Your task to perform on an android device: turn off smart reply in the gmail app Image 0: 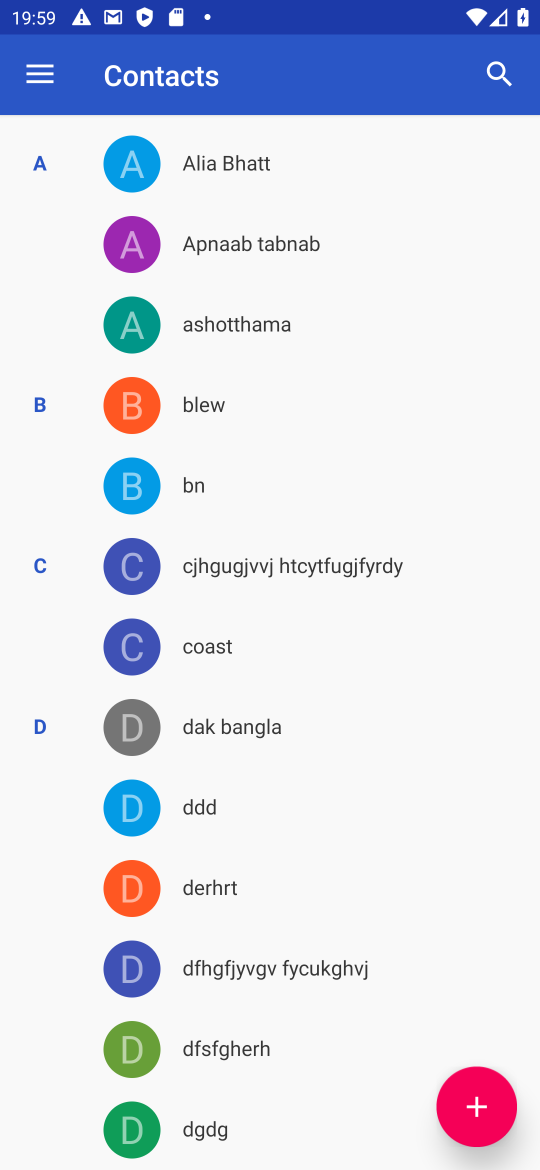
Step 0: press home button
Your task to perform on an android device: turn off smart reply in the gmail app Image 1: 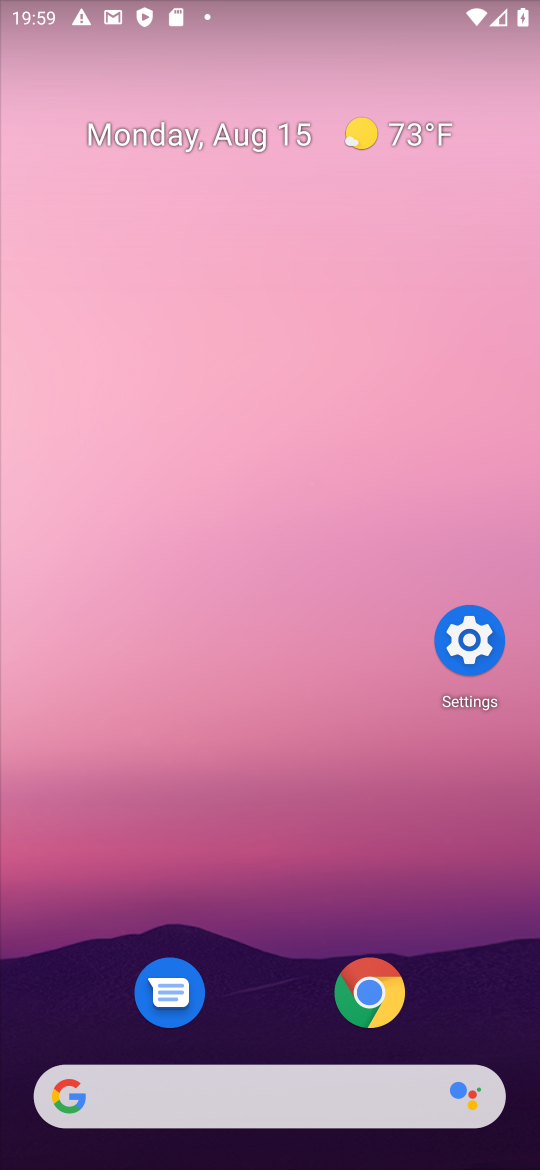
Step 1: drag from (277, 1066) to (430, 173)
Your task to perform on an android device: turn off smart reply in the gmail app Image 2: 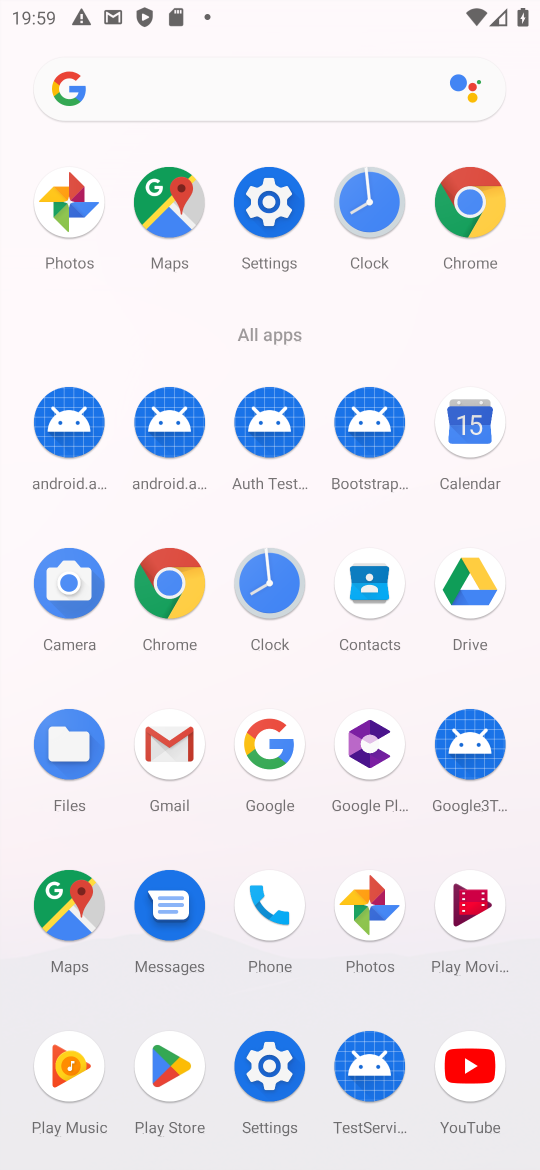
Step 2: click (172, 754)
Your task to perform on an android device: turn off smart reply in the gmail app Image 3: 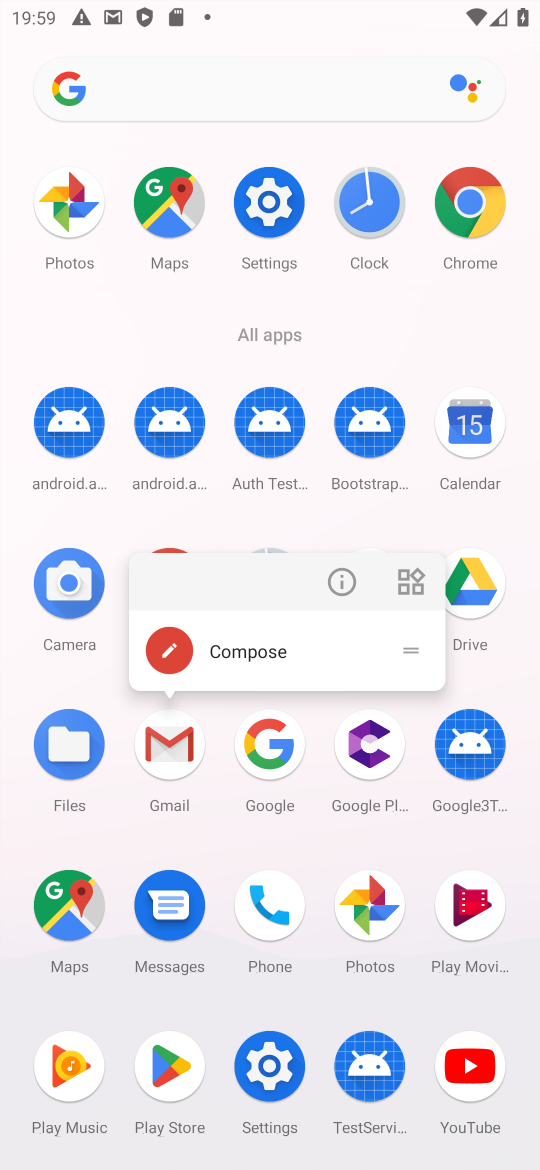
Step 3: click (172, 757)
Your task to perform on an android device: turn off smart reply in the gmail app Image 4: 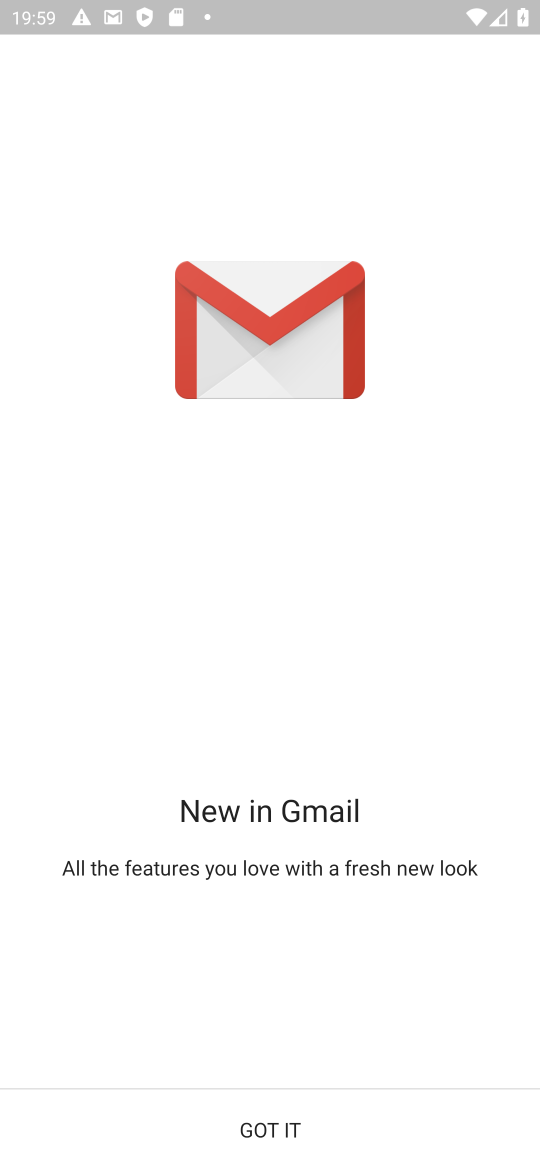
Step 4: click (330, 1131)
Your task to perform on an android device: turn off smart reply in the gmail app Image 5: 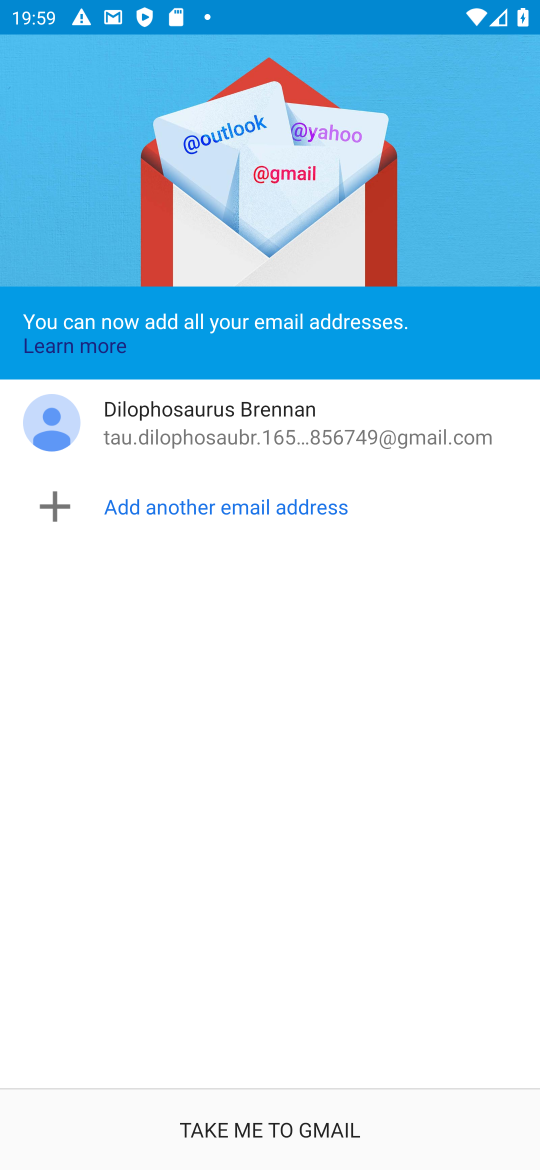
Step 5: click (301, 1131)
Your task to perform on an android device: turn off smart reply in the gmail app Image 6: 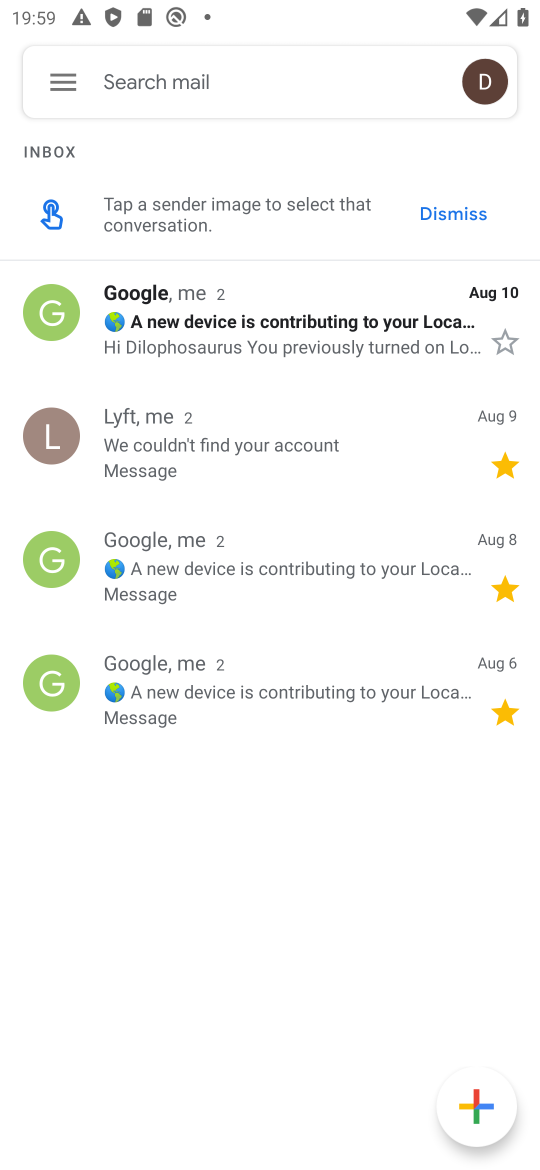
Step 6: click (57, 79)
Your task to perform on an android device: turn off smart reply in the gmail app Image 7: 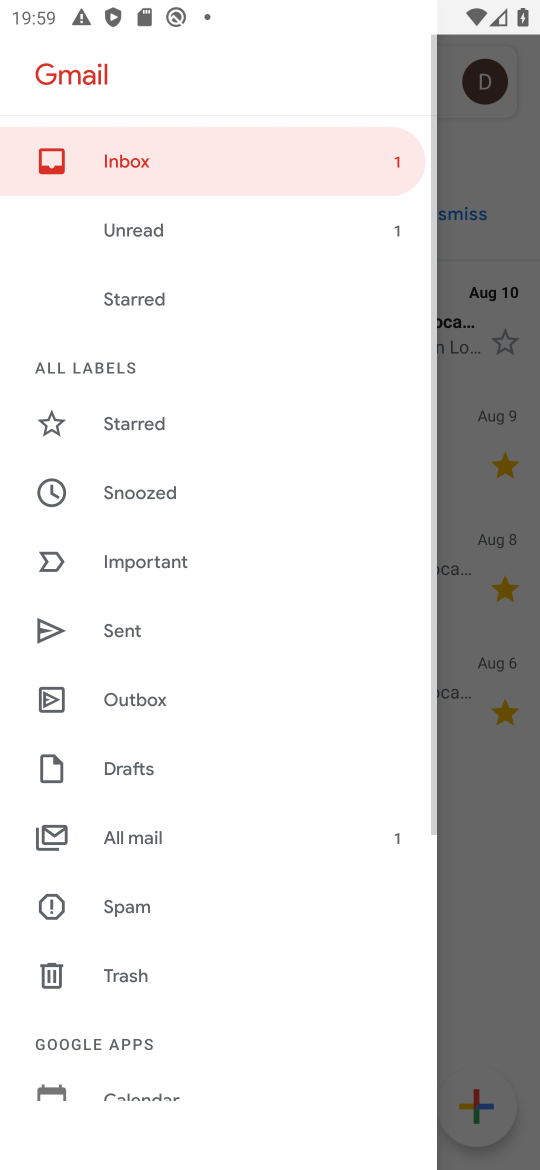
Step 7: drag from (188, 1069) to (413, 368)
Your task to perform on an android device: turn off smart reply in the gmail app Image 8: 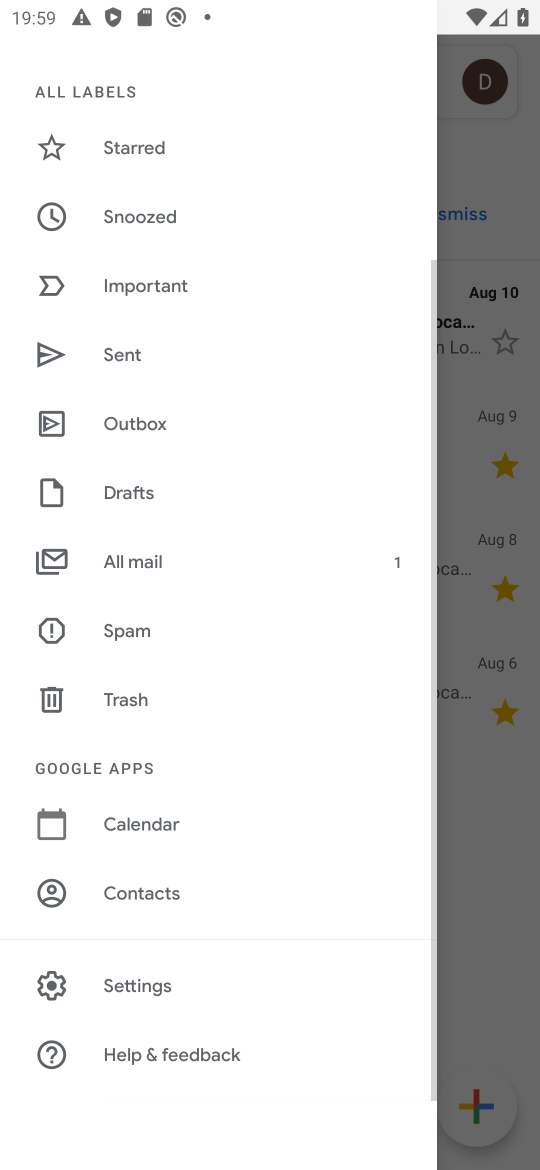
Step 8: click (149, 982)
Your task to perform on an android device: turn off smart reply in the gmail app Image 9: 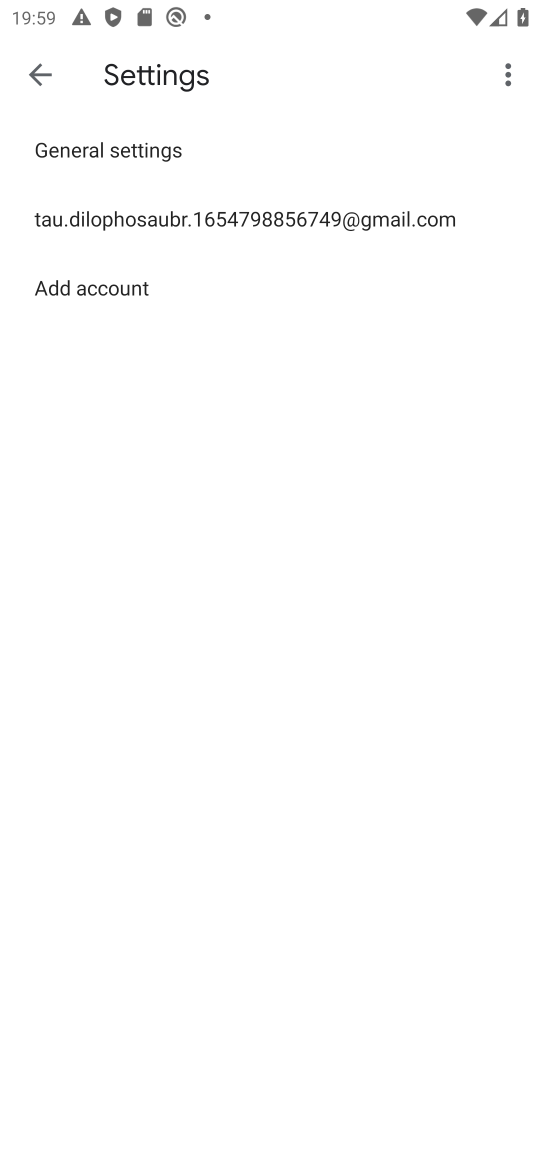
Step 9: click (330, 219)
Your task to perform on an android device: turn off smart reply in the gmail app Image 10: 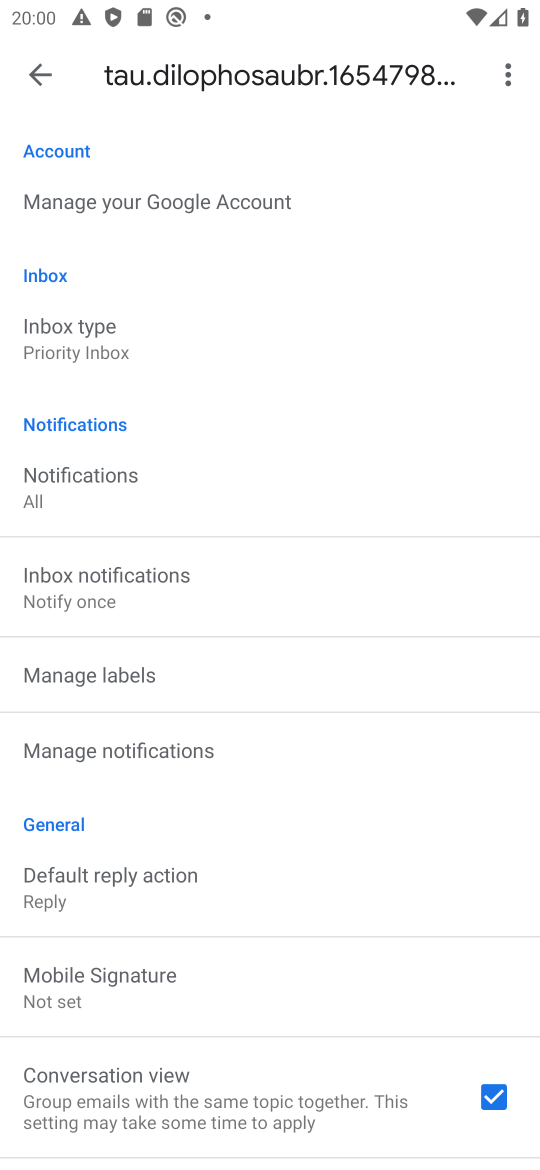
Step 10: drag from (300, 898) to (511, 113)
Your task to perform on an android device: turn off smart reply in the gmail app Image 11: 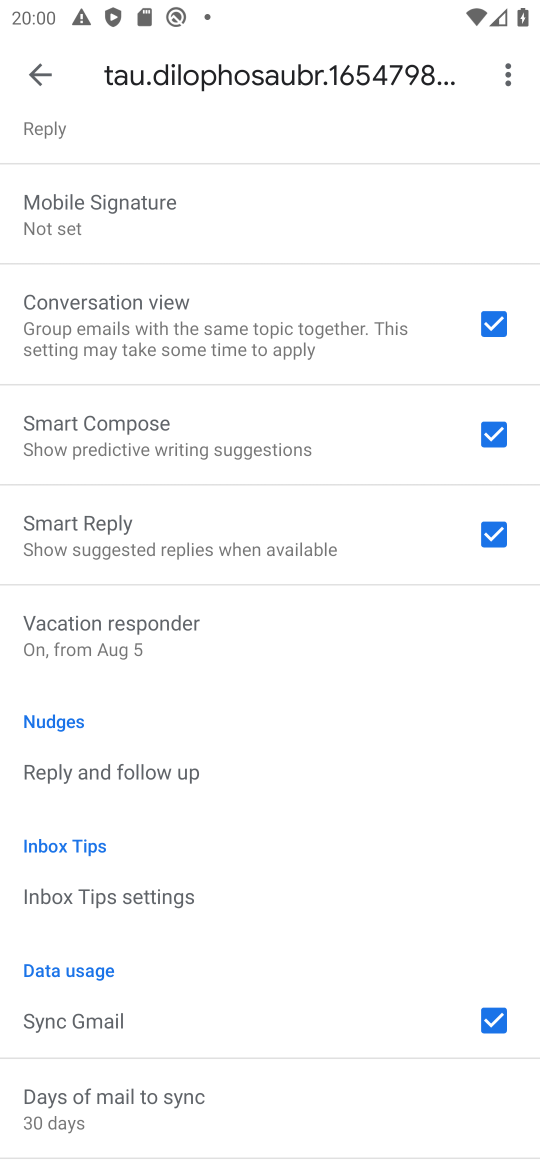
Step 11: click (487, 525)
Your task to perform on an android device: turn off smart reply in the gmail app Image 12: 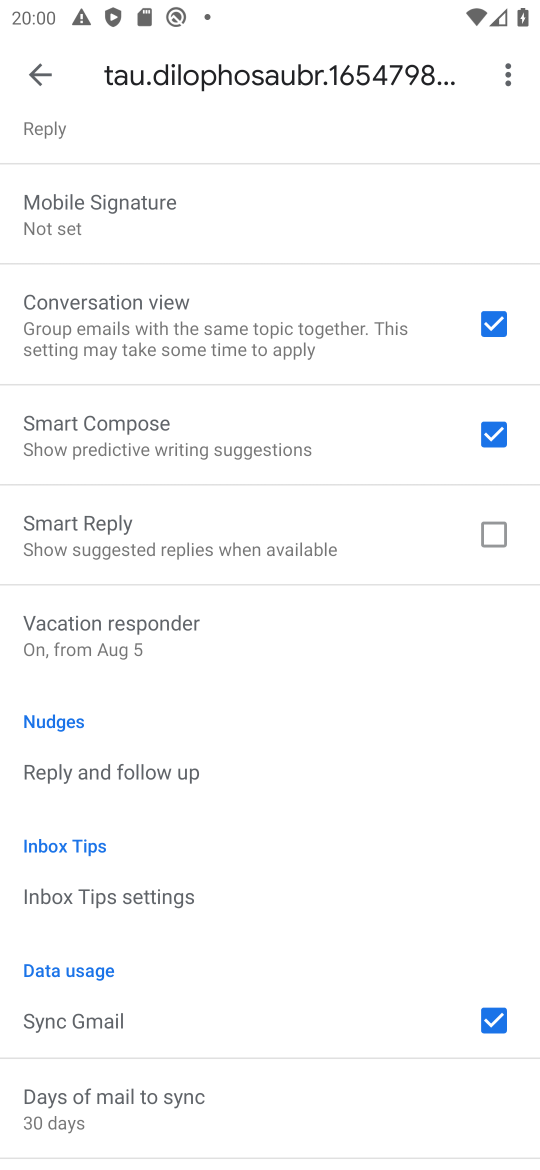
Step 12: task complete